Your task to perform on an android device: Go to location settings Image 0: 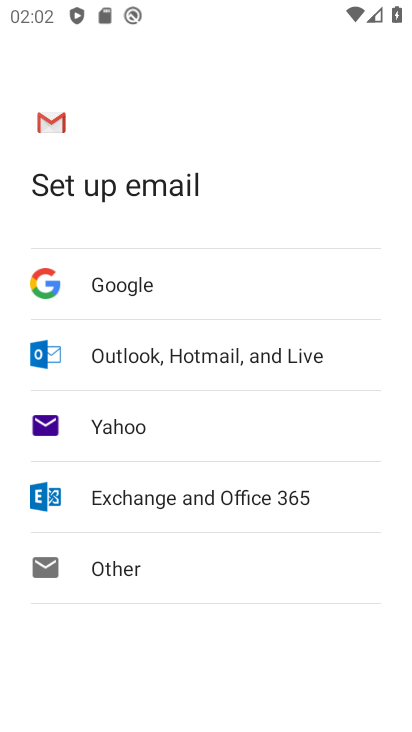
Step 0: press home button
Your task to perform on an android device: Go to location settings Image 1: 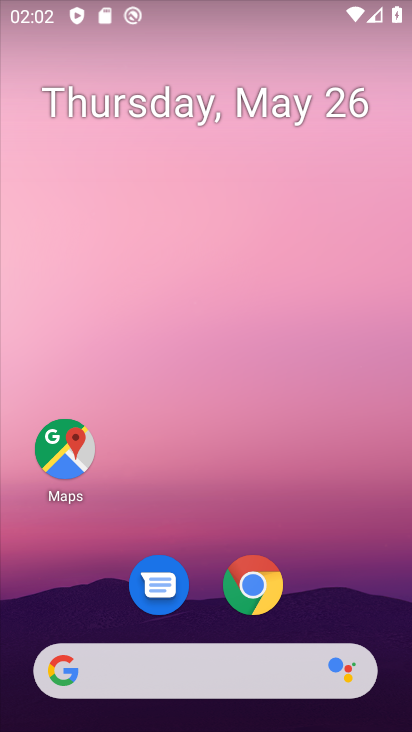
Step 1: drag from (218, 499) to (255, 34)
Your task to perform on an android device: Go to location settings Image 2: 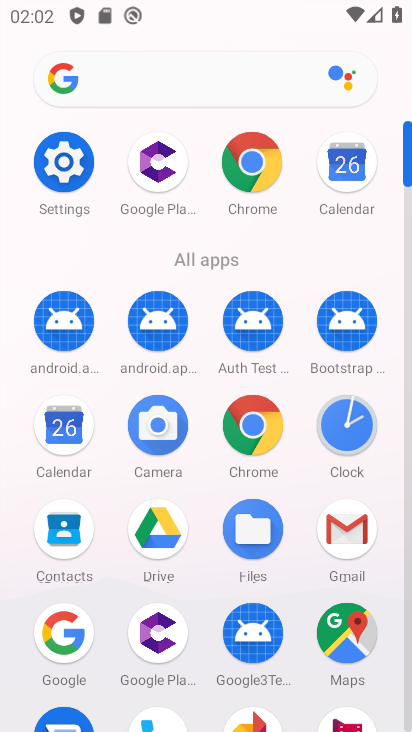
Step 2: click (72, 168)
Your task to perform on an android device: Go to location settings Image 3: 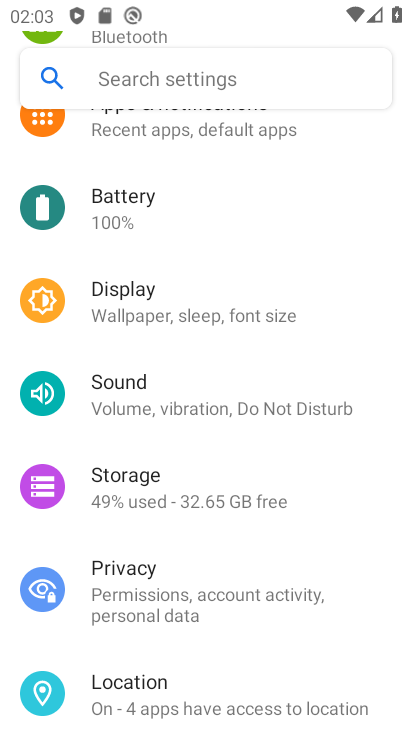
Step 3: click (200, 691)
Your task to perform on an android device: Go to location settings Image 4: 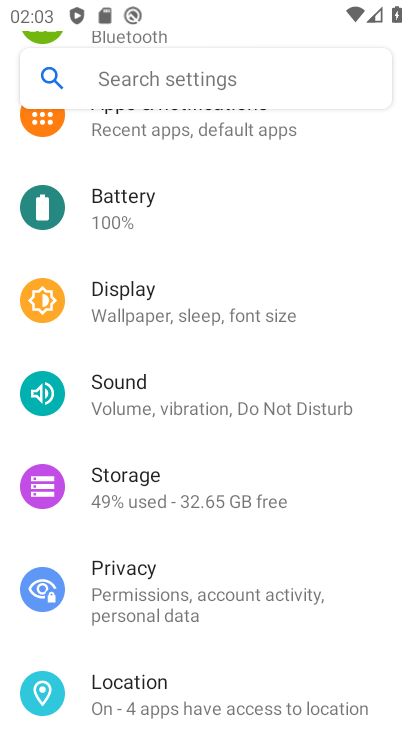
Step 4: click (243, 692)
Your task to perform on an android device: Go to location settings Image 5: 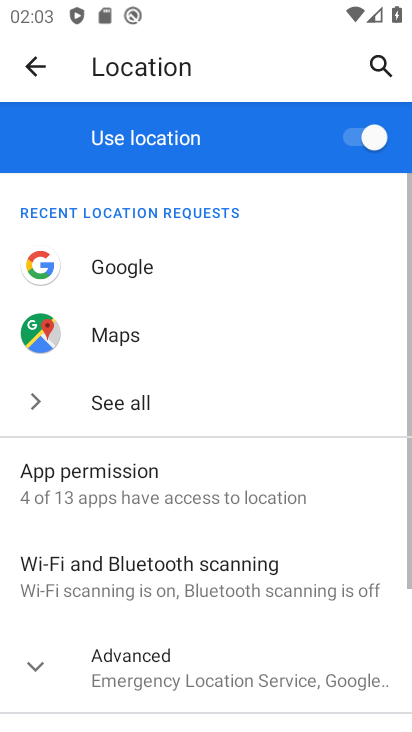
Step 5: task complete